Your task to perform on an android device: open app "Google Docs" (install if not already installed) Image 0: 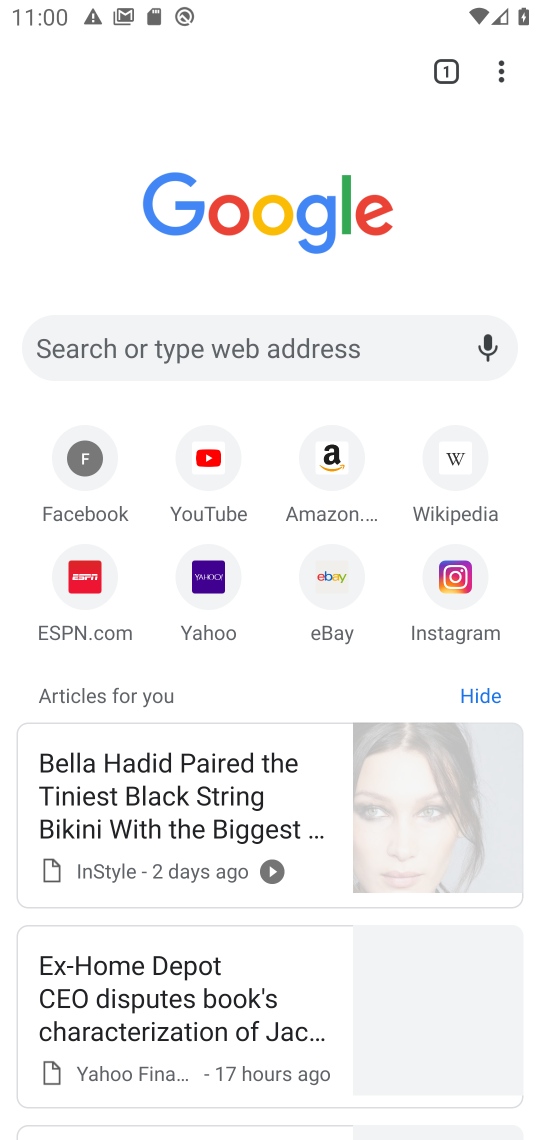
Step 0: press home button
Your task to perform on an android device: open app "Google Docs" (install if not already installed) Image 1: 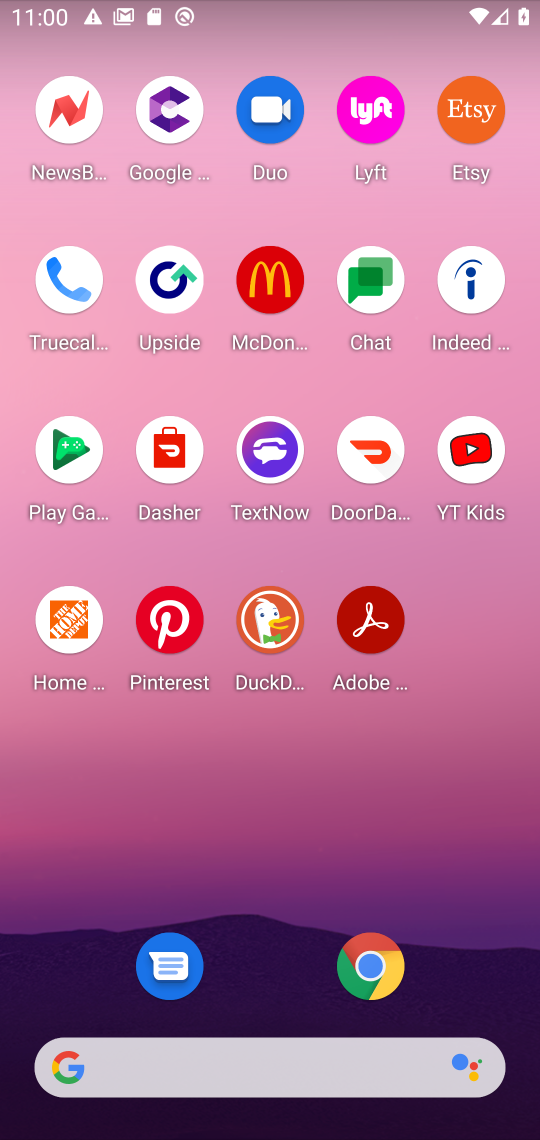
Step 1: drag from (253, 809) to (333, 36)
Your task to perform on an android device: open app "Google Docs" (install if not already installed) Image 2: 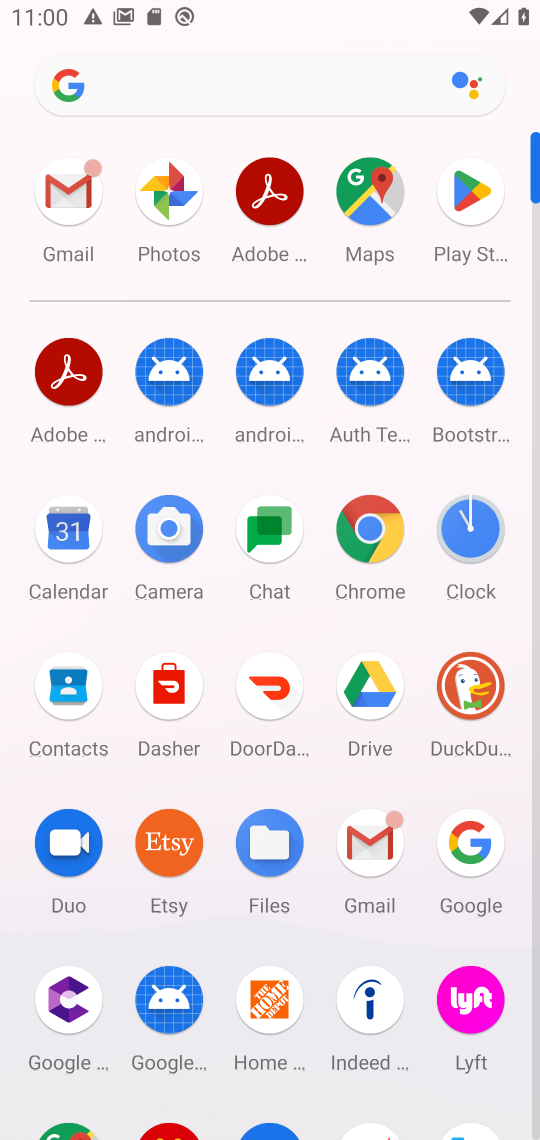
Step 2: click (471, 207)
Your task to perform on an android device: open app "Google Docs" (install if not already installed) Image 3: 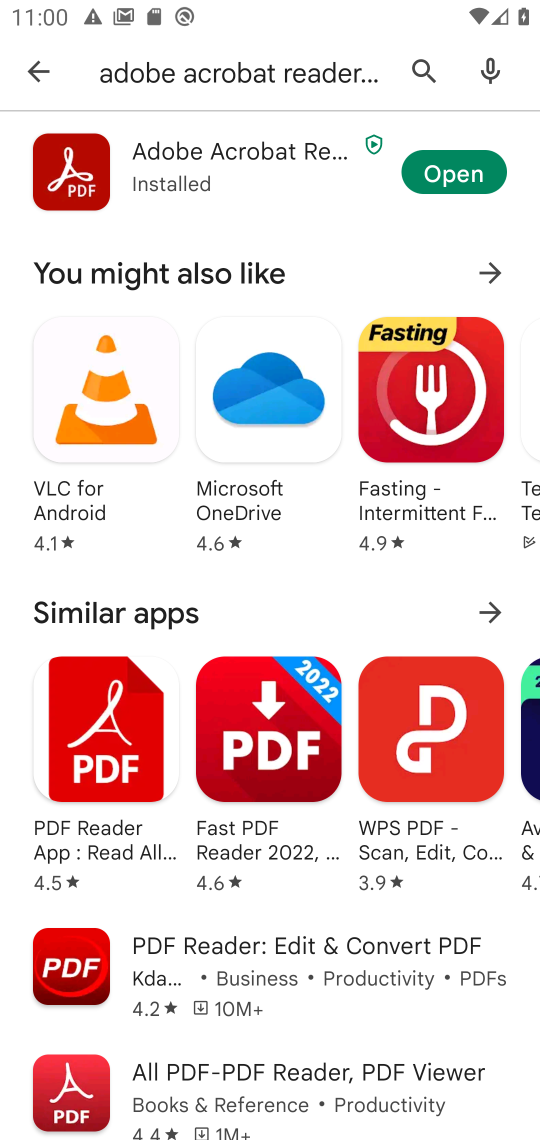
Step 3: click (258, 62)
Your task to perform on an android device: open app "Google Docs" (install if not already installed) Image 4: 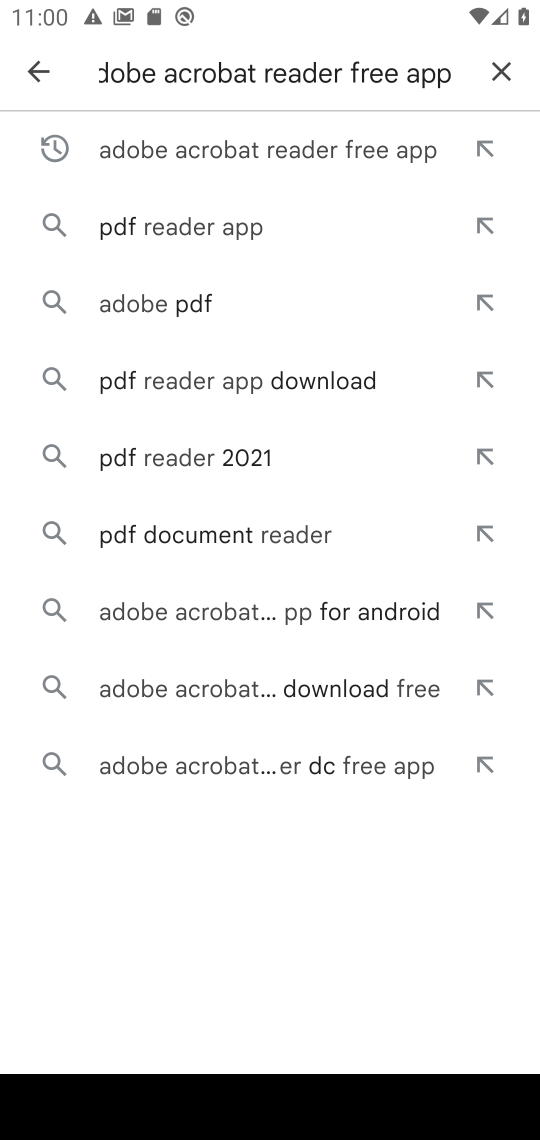
Step 4: click (505, 67)
Your task to perform on an android device: open app "Google Docs" (install if not already installed) Image 5: 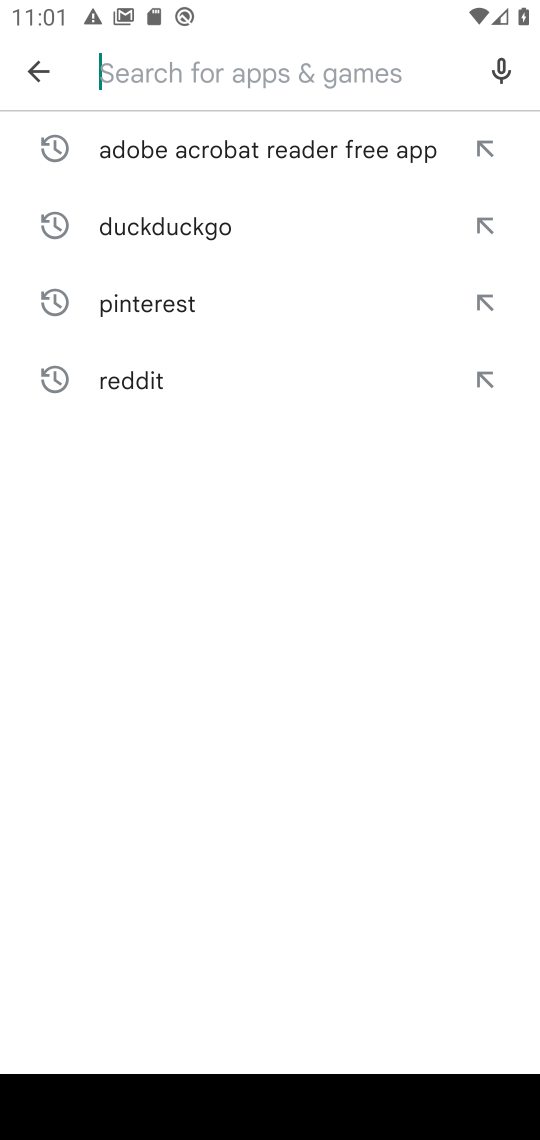
Step 5: type "google docs"
Your task to perform on an android device: open app "Google Docs" (install if not already installed) Image 6: 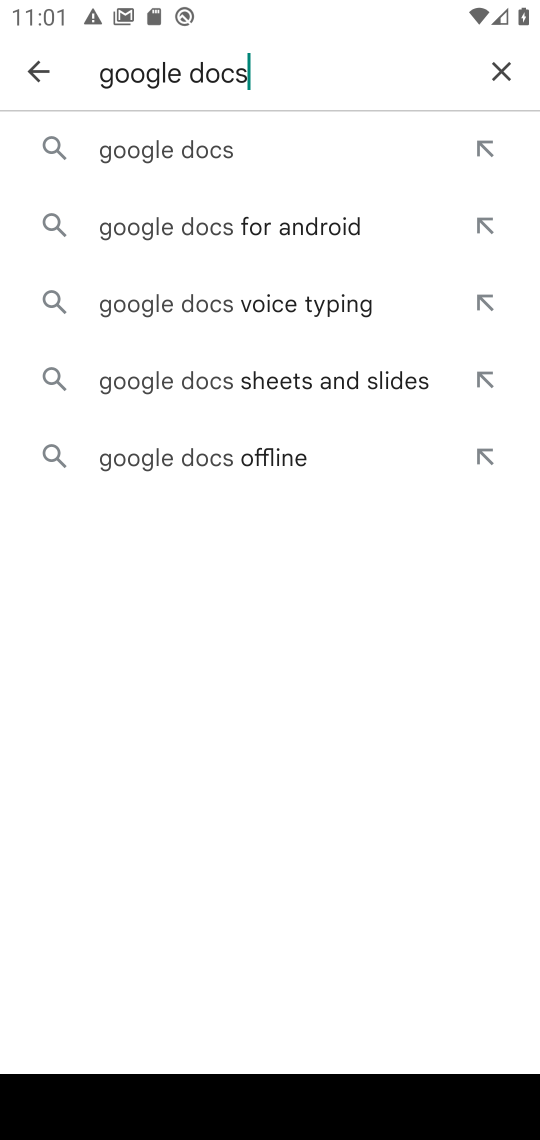
Step 6: click (193, 162)
Your task to perform on an android device: open app "Google Docs" (install if not already installed) Image 7: 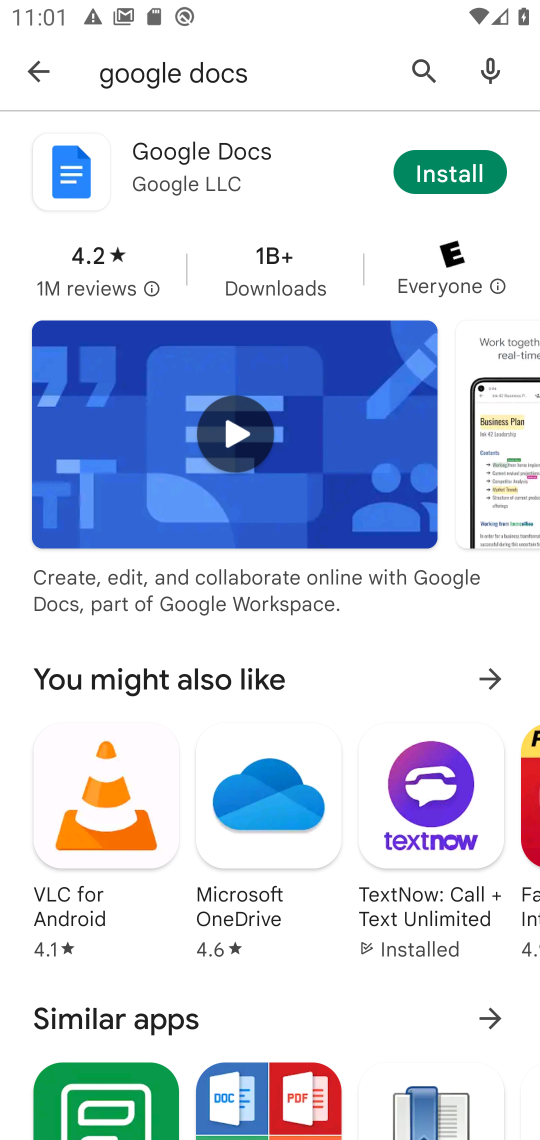
Step 7: click (435, 165)
Your task to perform on an android device: open app "Google Docs" (install if not already installed) Image 8: 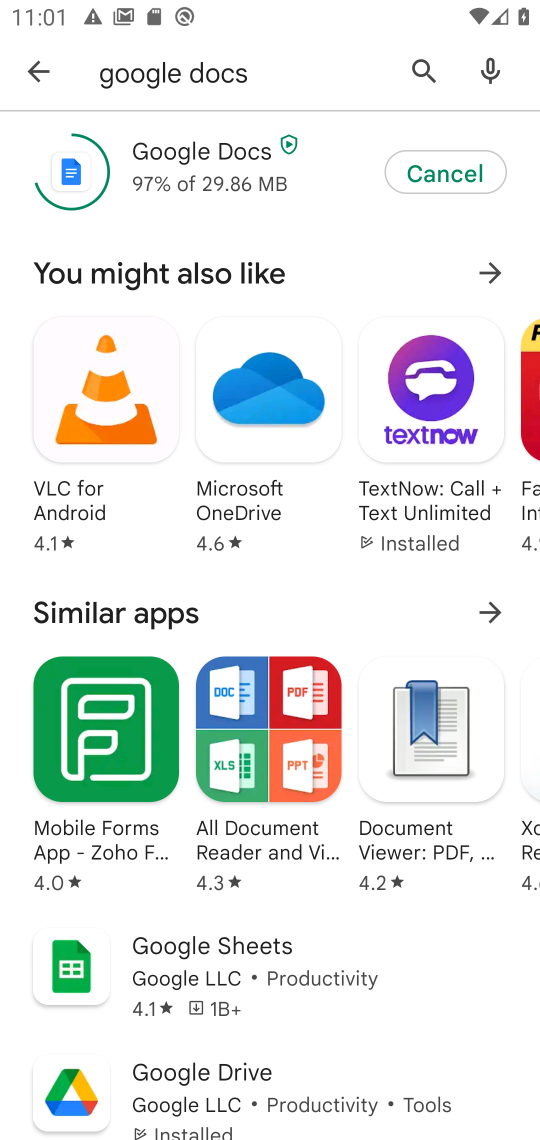
Step 8: drag from (286, 882) to (253, 1077)
Your task to perform on an android device: open app "Google Docs" (install if not already installed) Image 9: 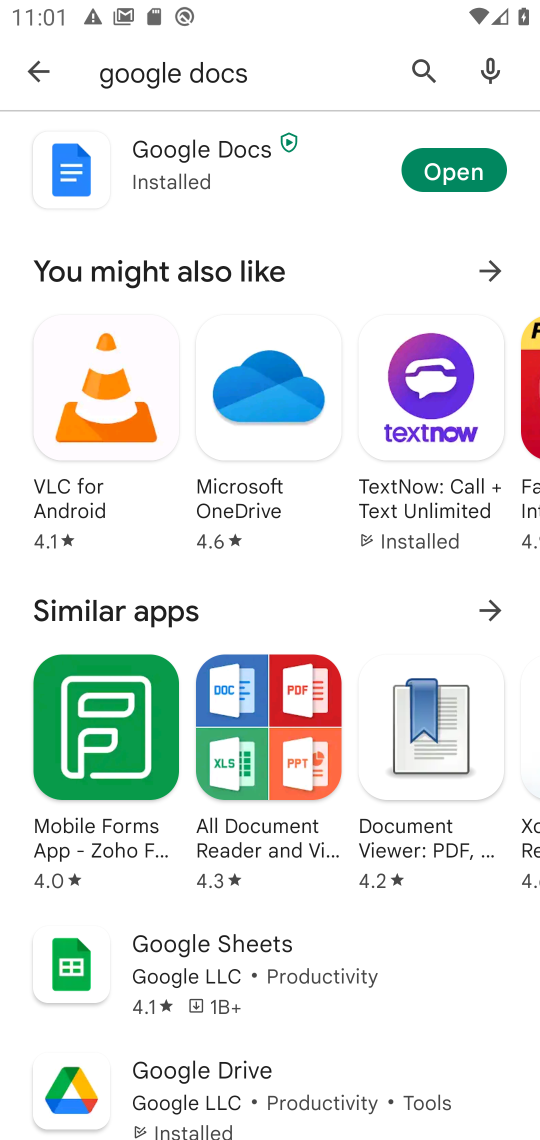
Step 9: click (437, 173)
Your task to perform on an android device: open app "Google Docs" (install if not already installed) Image 10: 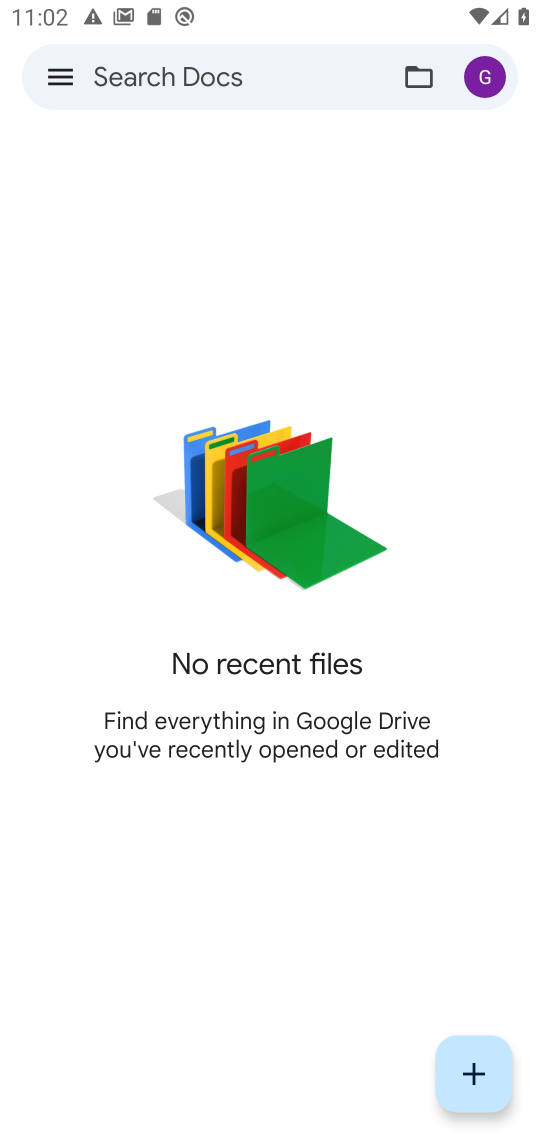
Step 10: task complete